Your task to perform on an android device: turn vacation reply on in the gmail app Image 0: 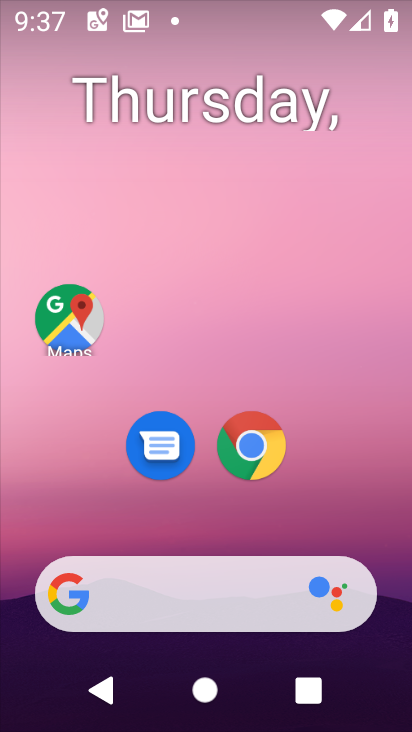
Step 0: drag from (169, 549) to (226, 166)
Your task to perform on an android device: turn vacation reply on in the gmail app Image 1: 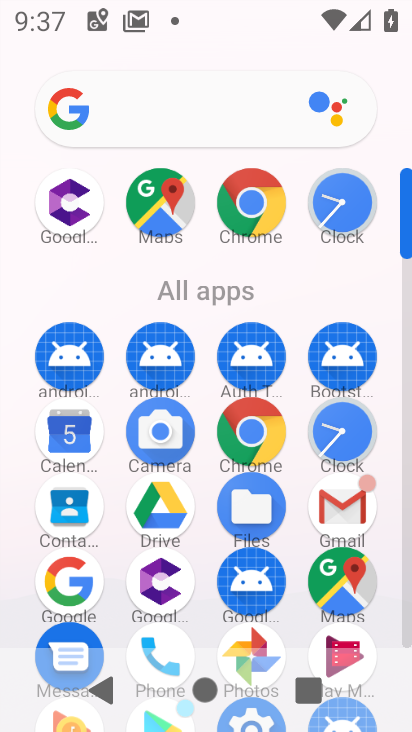
Step 1: click (342, 530)
Your task to perform on an android device: turn vacation reply on in the gmail app Image 2: 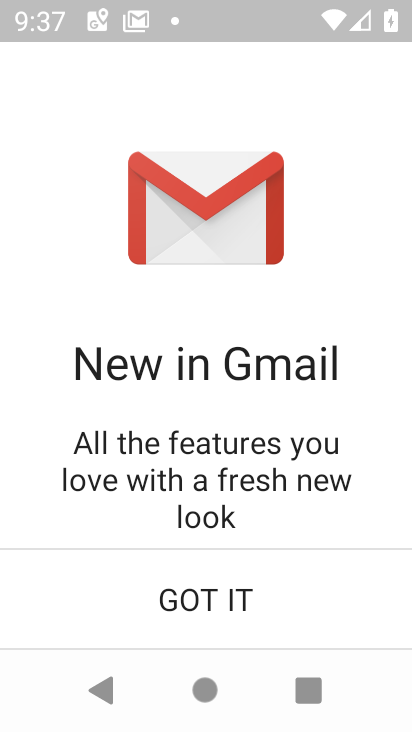
Step 2: click (175, 606)
Your task to perform on an android device: turn vacation reply on in the gmail app Image 3: 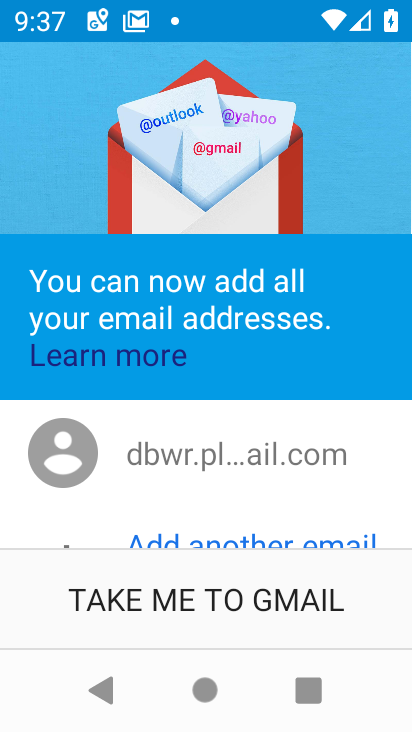
Step 3: click (176, 601)
Your task to perform on an android device: turn vacation reply on in the gmail app Image 4: 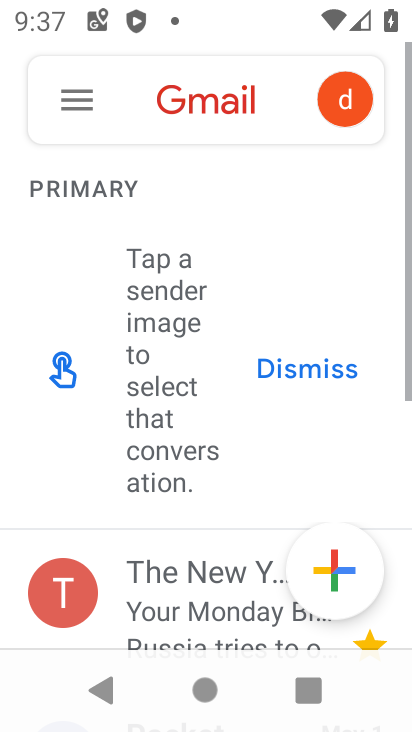
Step 4: click (74, 100)
Your task to perform on an android device: turn vacation reply on in the gmail app Image 5: 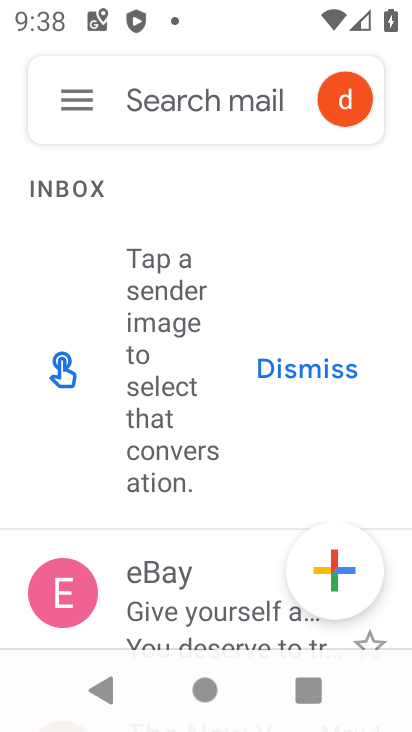
Step 5: click (83, 104)
Your task to perform on an android device: turn vacation reply on in the gmail app Image 6: 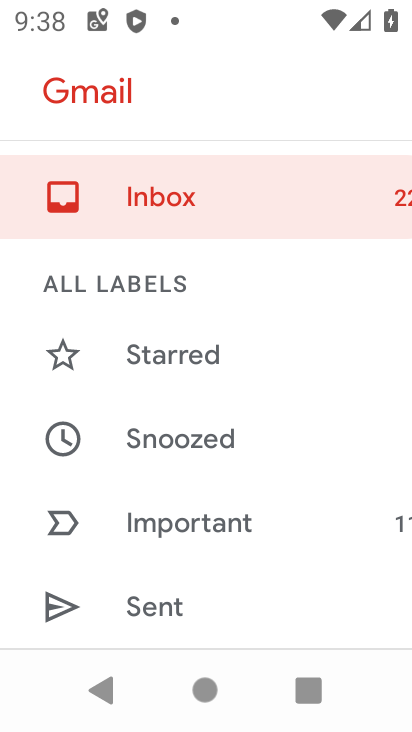
Step 6: drag from (118, 621) to (252, 190)
Your task to perform on an android device: turn vacation reply on in the gmail app Image 7: 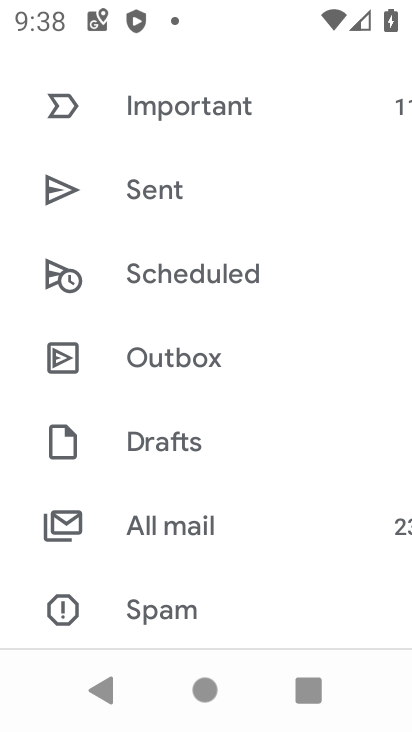
Step 7: drag from (234, 605) to (283, 239)
Your task to perform on an android device: turn vacation reply on in the gmail app Image 8: 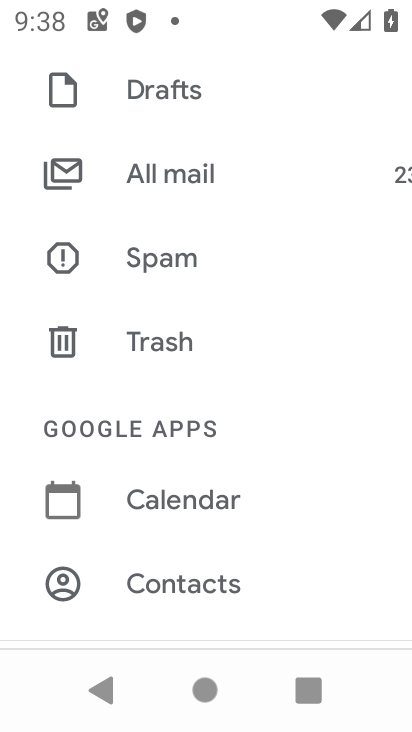
Step 8: drag from (158, 620) to (254, 290)
Your task to perform on an android device: turn vacation reply on in the gmail app Image 9: 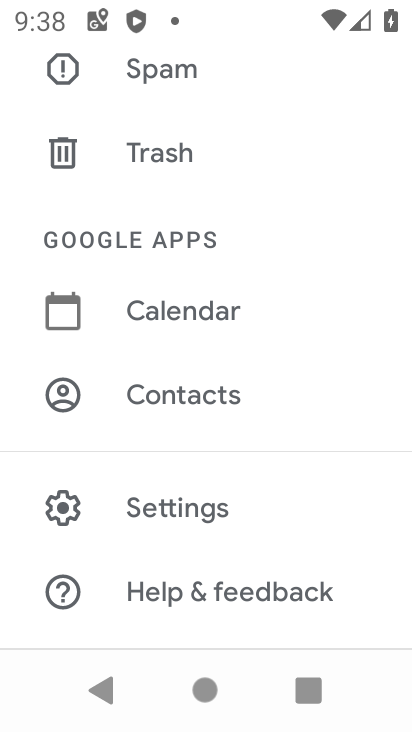
Step 9: click (151, 510)
Your task to perform on an android device: turn vacation reply on in the gmail app Image 10: 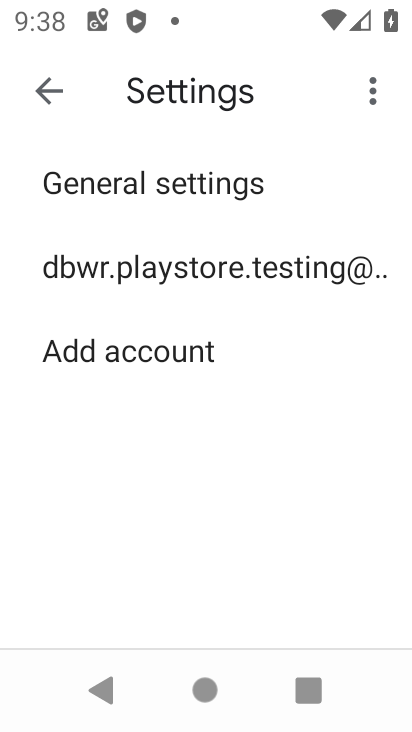
Step 10: click (127, 284)
Your task to perform on an android device: turn vacation reply on in the gmail app Image 11: 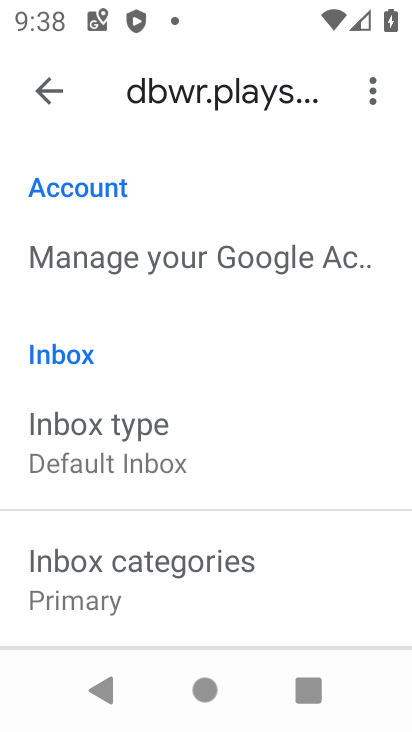
Step 11: drag from (219, 598) to (277, 180)
Your task to perform on an android device: turn vacation reply on in the gmail app Image 12: 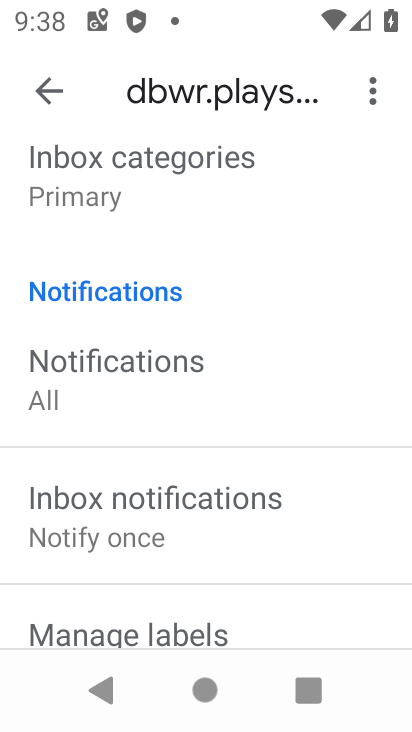
Step 12: drag from (189, 606) to (255, 223)
Your task to perform on an android device: turn vacation reply on in the gmail app Image 13: 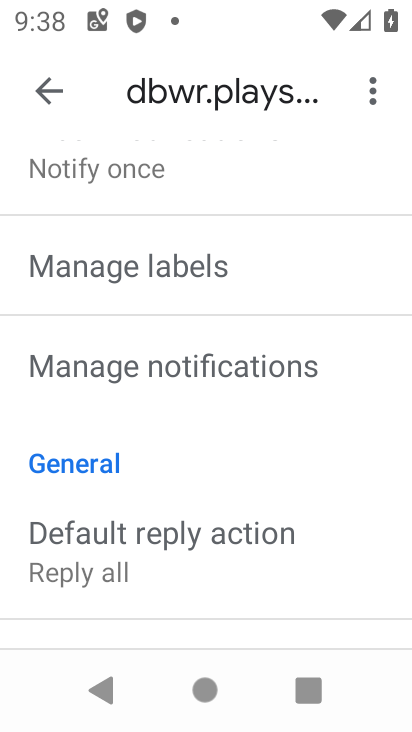
Step 13: drag from (155, 566) to (223, 226)
Your task to perform on an android device: turn vacation reply on in the gmail app Image 14: 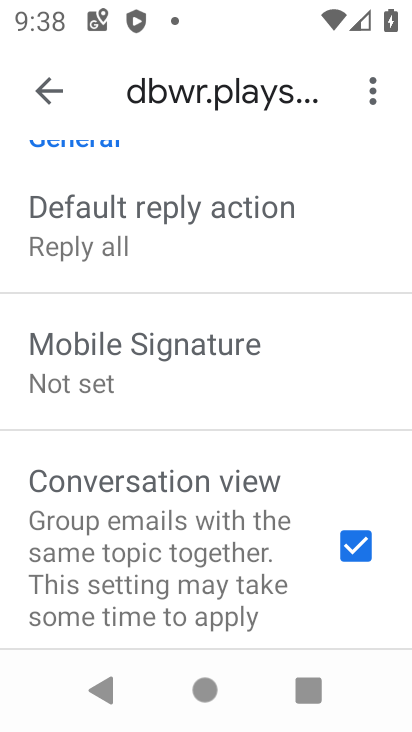
Step 14: drag from (179, 598) to (313, 265)
Your task to perform on an android device: turn vacation reply on in the gmail app Image 15: 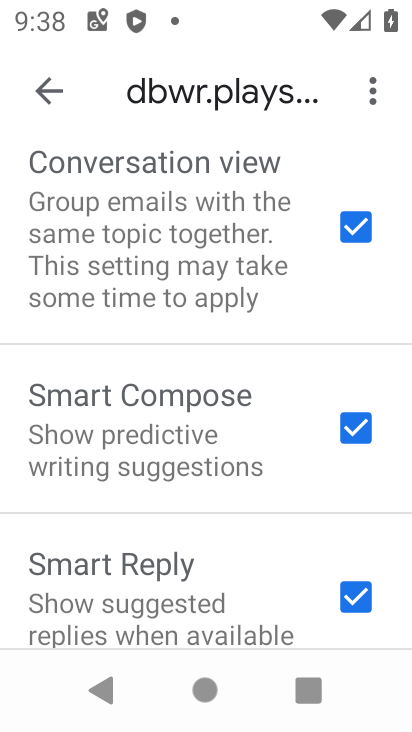
Step 15: drag from (118, 587) to (271, 209)
Your task to perform on an android device: turn vacation reply on in the gmail app Image 16: 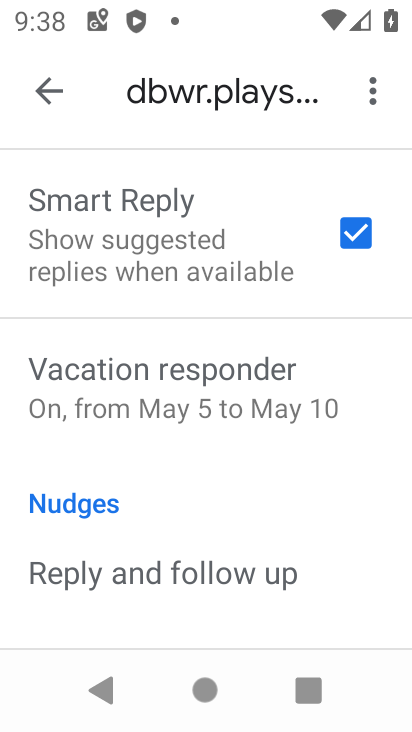
Step 16: click (169, 387)
Your task to perform on an android device: turn vacation reply on in the gmail app Image 17: 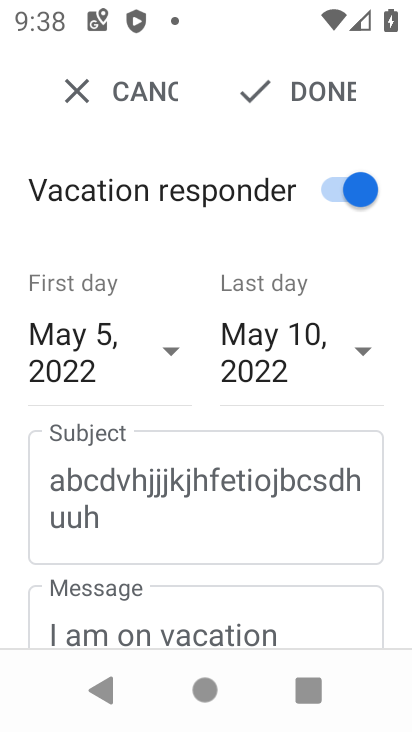
Step 17: task complete